Your task to perform on an android device: turn off improve location accuracy Image 0: 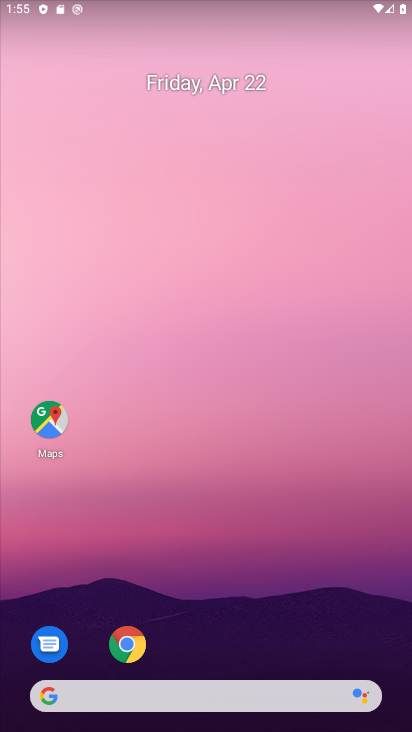
Step 0: drag from (283, 640) to (306, 180)
Your task to perform on an android device: turn off improve location accuracy Image 1: 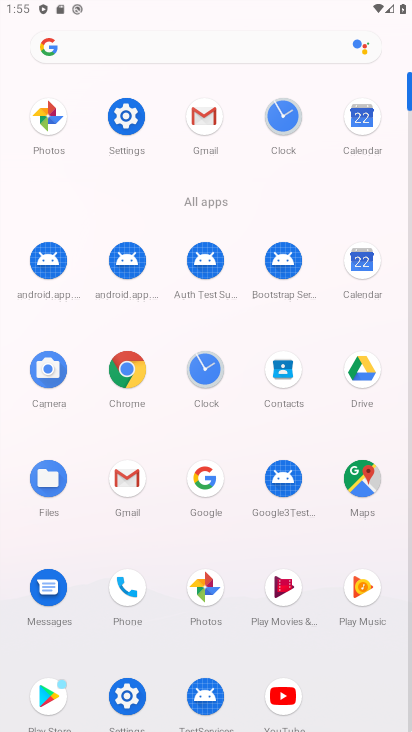
Step 1: click (130, 122)
Your task to perform on an android device: turn off improve location accuracy Image 2: 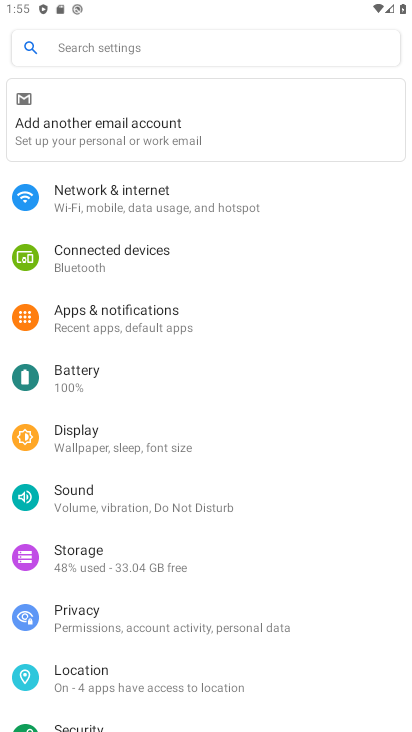
Step 2: drag from (162, 617) to (206, 276)
Your task to perform on an android device: turn off improve location accuracy Image 3: 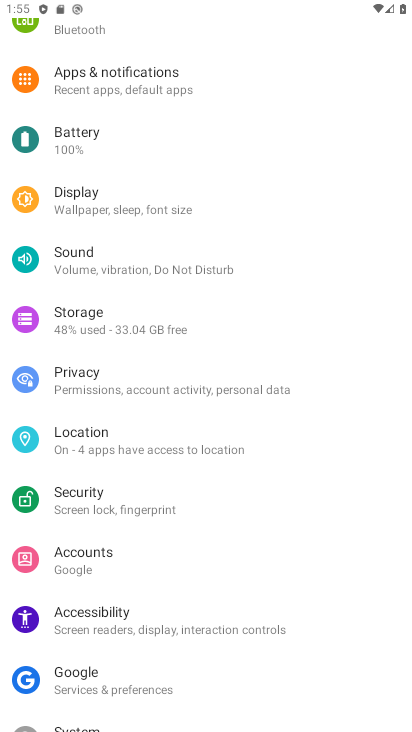
Step 3: click (115, 441)
Your task to perform on an android device: turn off improve location accuracy Image 4: 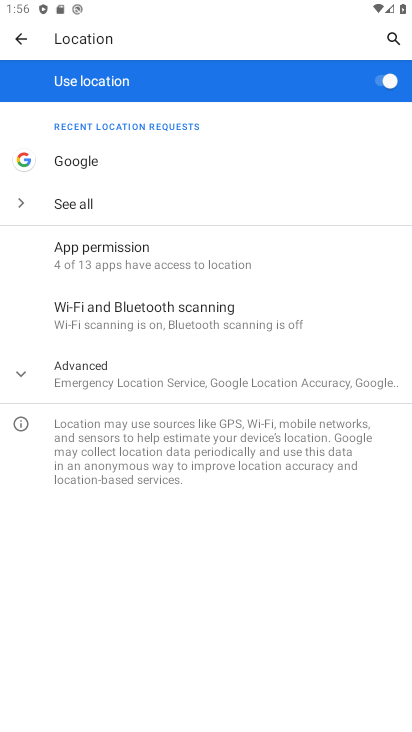
Step 4: click (144, 383)
Your task to perform on an android device: turn off improve location accuracy Image 5: 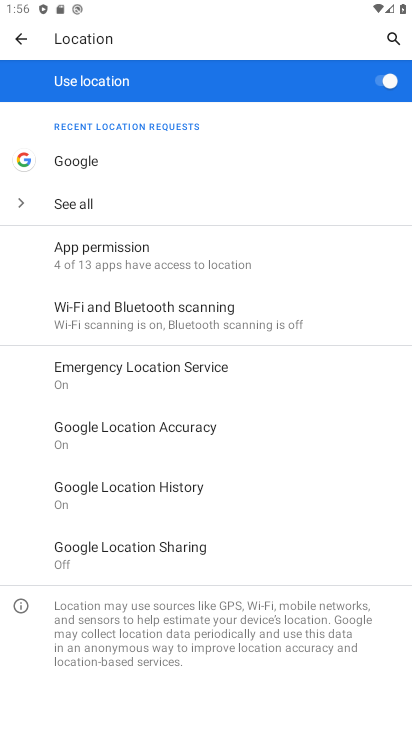
Step 5: click (137, 429)
Your task to perform on an android device: turn off improve location accuracy Image 6: 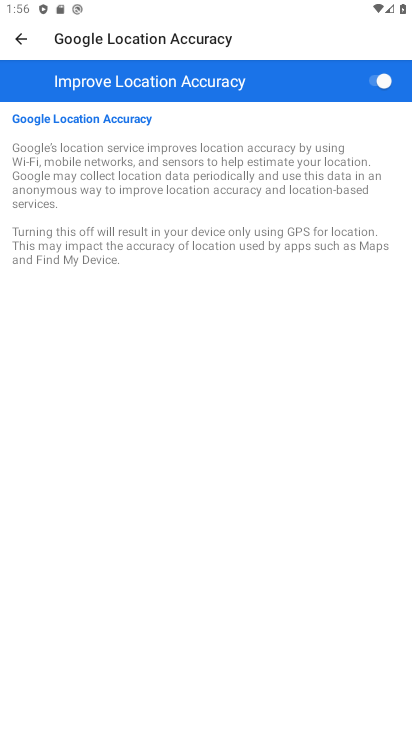
Step 6: click (375, 83)
Your task to perform on an android device: turn off improve location accuracy Image 7: 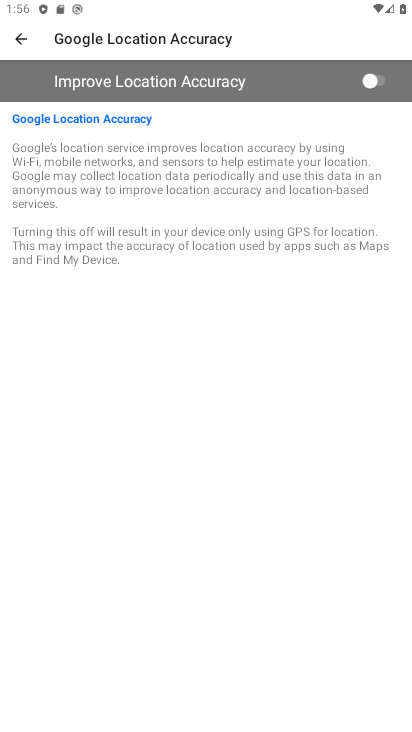
Step 7: task complete